Your task to perform on an android device: empty trash in the gmail app Image 0: 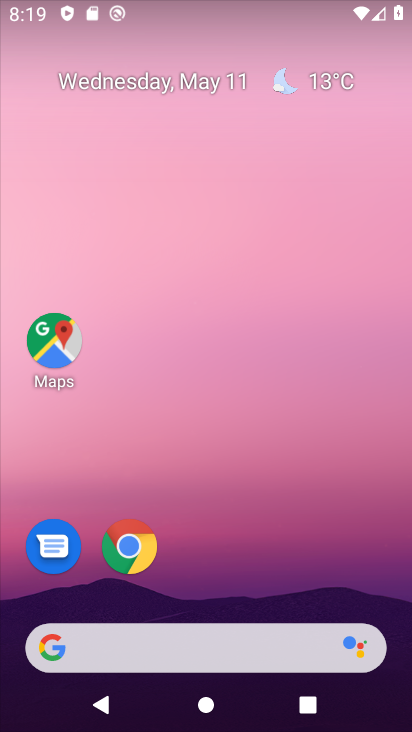
Step 0: drag from (240, 484) to (280, 111)
Your task to perform on an android device: empty trash in the gmail app Image 1: 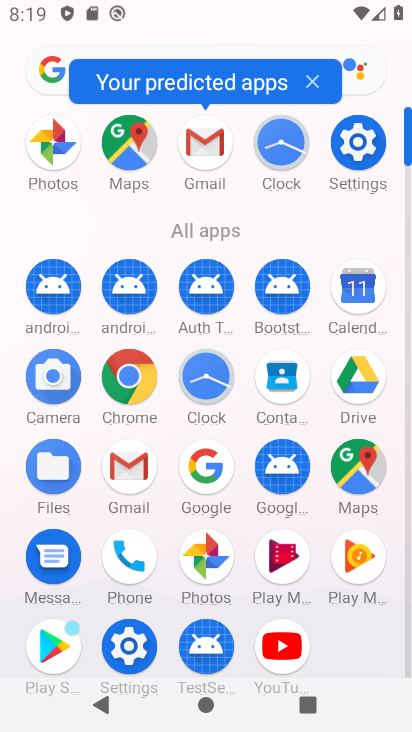
Step 1: click (216, 145)
Your task to perform on an android device: empty trash in the gmail app Image 2: 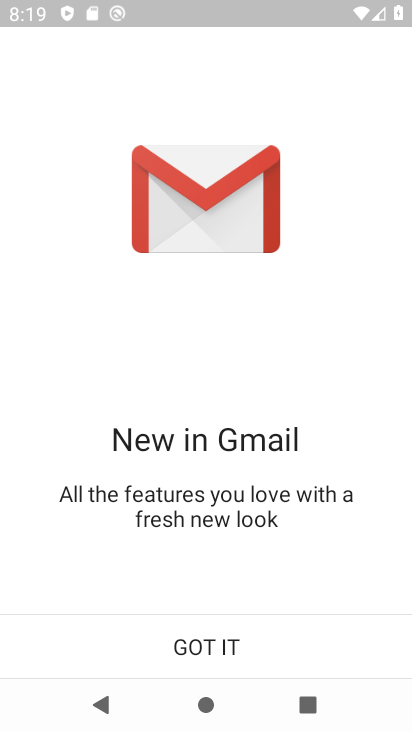
Step 2: click (191, 627)
Your task to perform on an android device: empty trash in the gmail app Image 3: 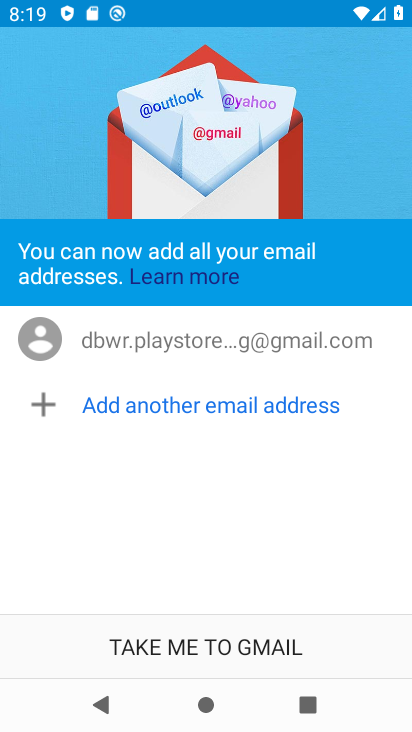
Step 3: click (204, 634)
Your task to perform on an android device: empty trash in the gmail app Image 4: 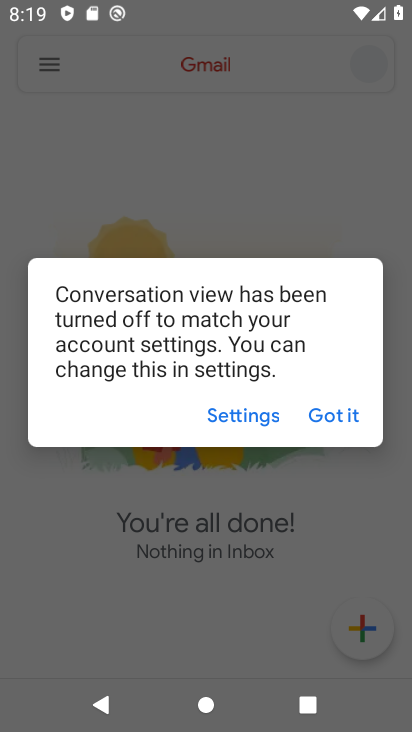
Step 4: click (331, 422)
Your task to perform on an android device: empty trash in the gmail app Image 5: 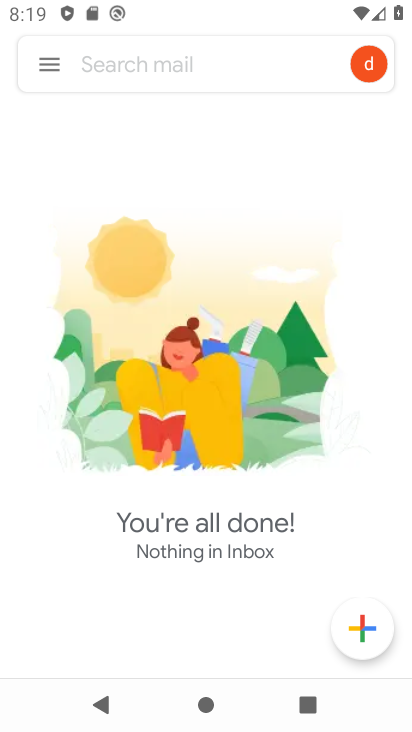
Step 5: click (45, 59)
Your task to perform on an android device: empty trash in the gmail app Image 6: 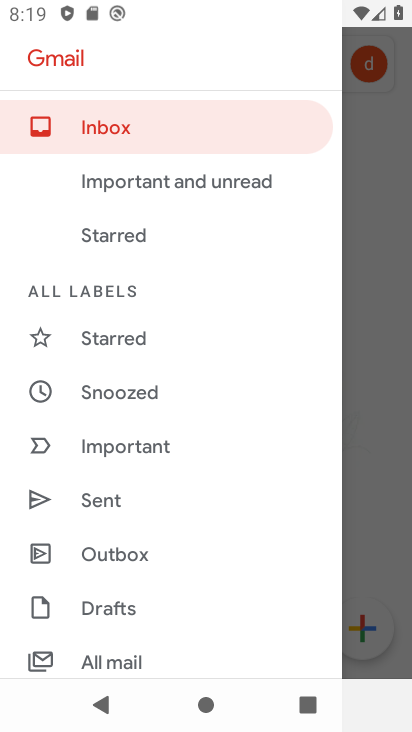
Step 6: drag from (151, 548) to (214, 130)
Your task to perform on an android device: empty trash in the gmail app Image 7: 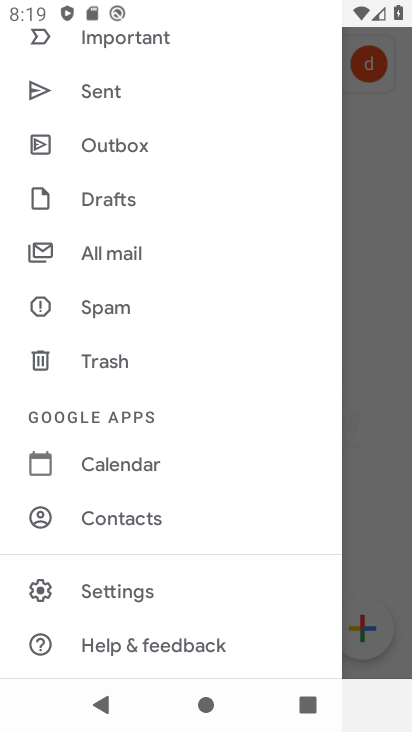
Step 7: click (105, 358)
Your task to perform on an android device: empty trash in the gmail app Image 8: 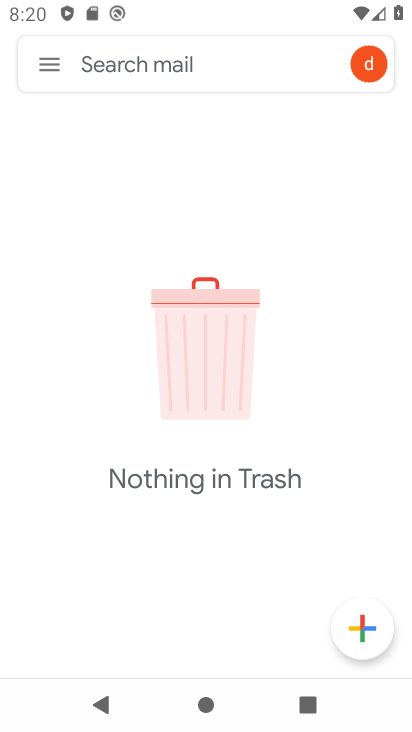
Step 8: task complete